Your task to perform on an android device: Go to Yahoo.com Image 0: 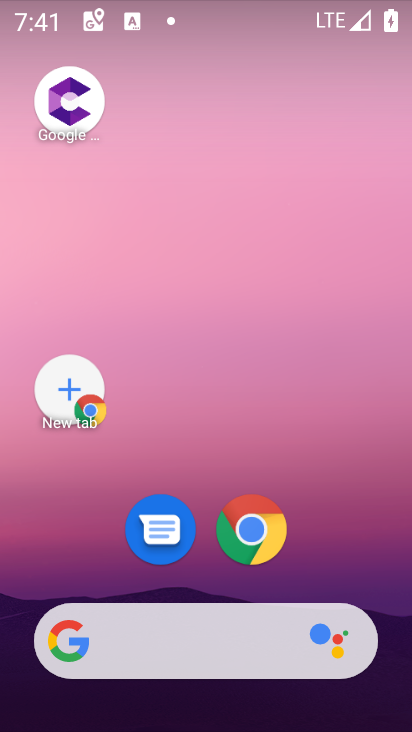
Step 0: drag from (323, 549) to (411, 178)
Your task to perform on an android device: Go to Yahoo.com Image 1: 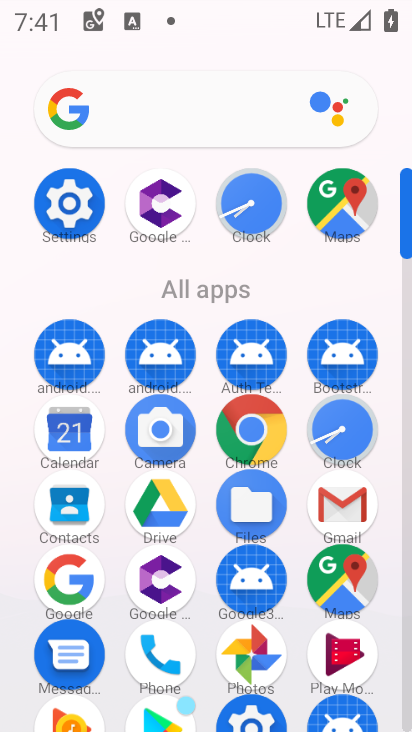
Step 1: click (230, 421)
Your task to perform on an android device: Go to Yahoo.com Image 2: 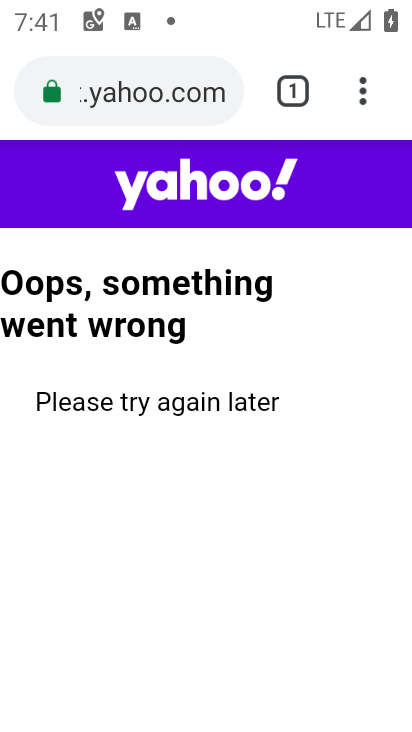
Step 2: task complete